Your task to perform on an android device: set the stopwatch Image 0: 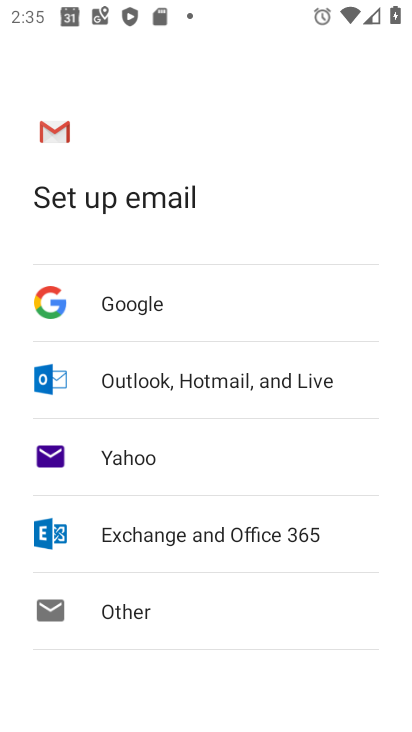
Step 0: press home button
Your task to perform on an android device: set the stopwatch Image 1: 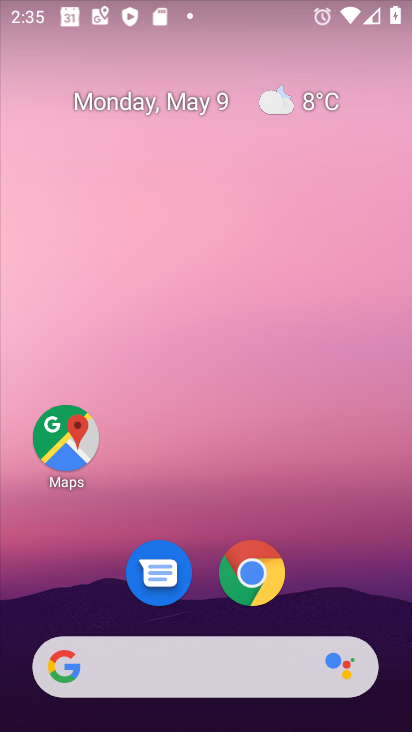
Step 1: drag from (123, 669) to (268, 37)
Your task to perform on an android device: set the stopwatch Image 2: 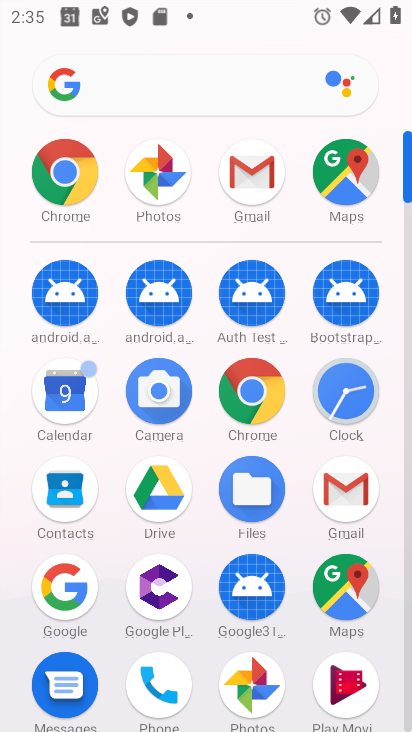
Step 2: click (343, 406)
Your task to perform on an android device: set the stopwatch Image 3: 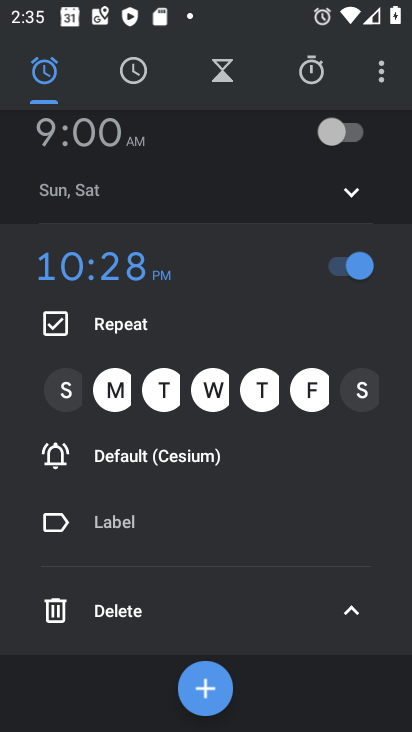
Step 3: click (305, 77)
Your task to perform on an android device: set the stopwatch Image 4: 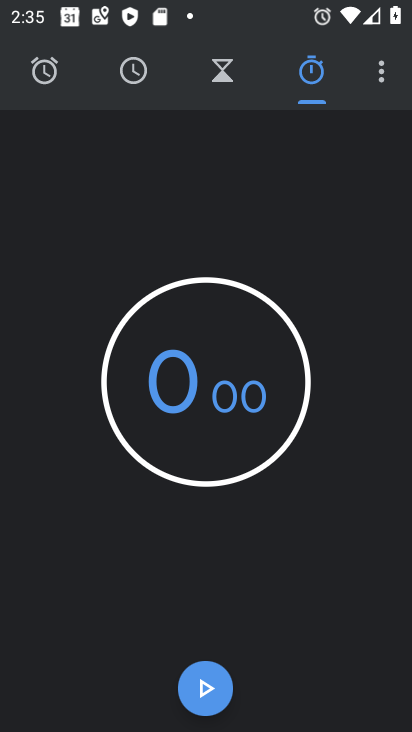
Step 4: click (216, 380)
Your task to perform on an android device: set the stopwatch Image 5: 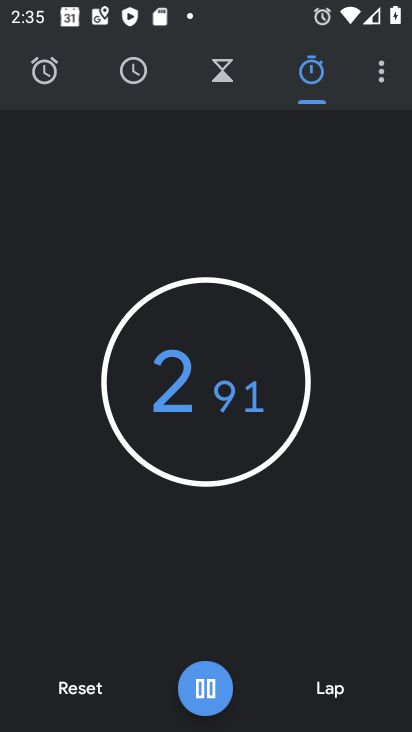
Step 5: click (216, 380)
Your task to perform on an android device: set the stopwatch Image 6: 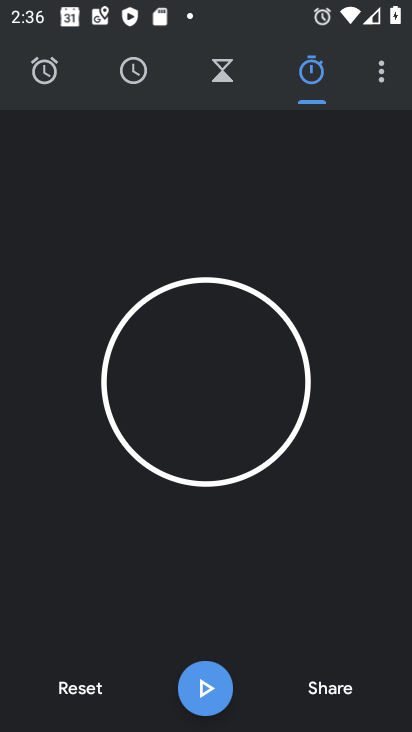
Step 6: task complete